Your task to perform on an android device: search for starred emails in the gmail app Image 0: 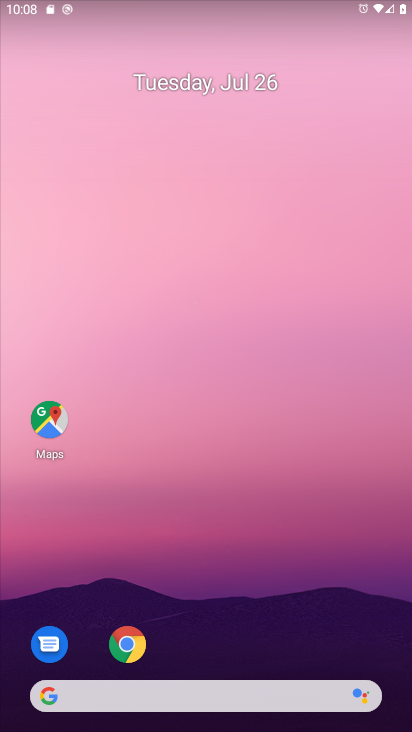
Step 0: drag from (201, 610) to (226, 98)
Your task to perform on an android device: search for starred emails in the gmail app Image 1: 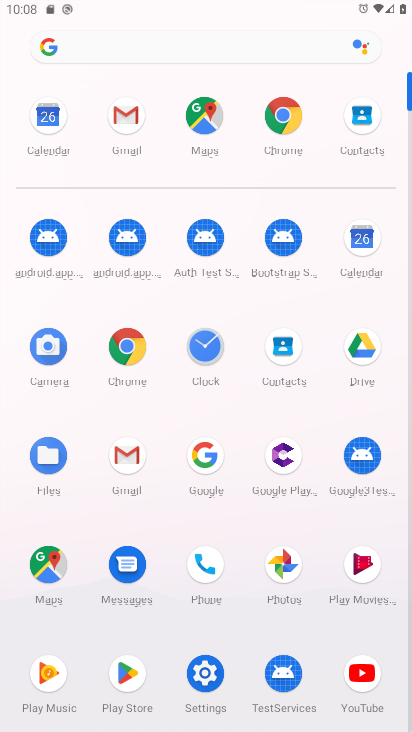
Step 1: click (121, 469)
Your task to perform on an android device: search for starred emails in the gmail app Image 2: 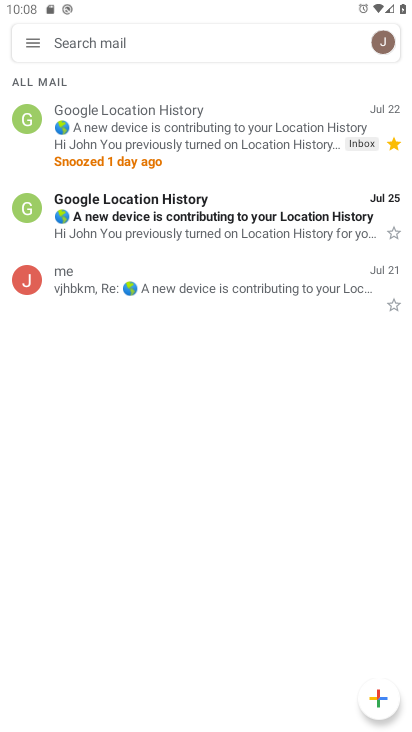
Step 2: click (37, 42)
Your task to perform on an android device: search for starred emails in the gmail app Image 3: 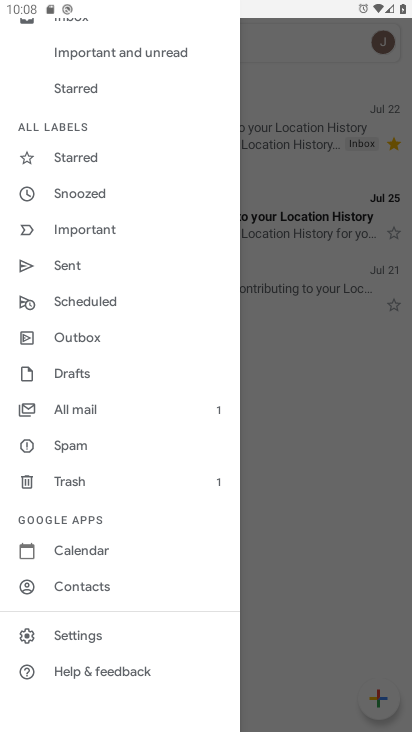
Step 3: click (70, 162)
Your task to perform on an android device: search for starred emails in the gmail app Image 4: 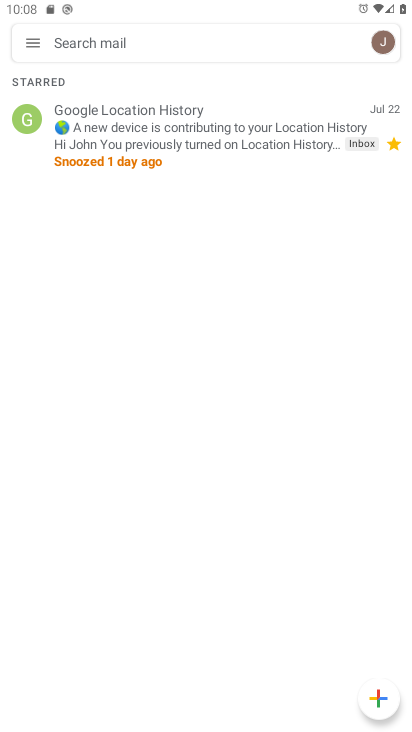
Step 4: task complete